Your task to perform on an android device: make emails show in primary in the gmail app Image 0: 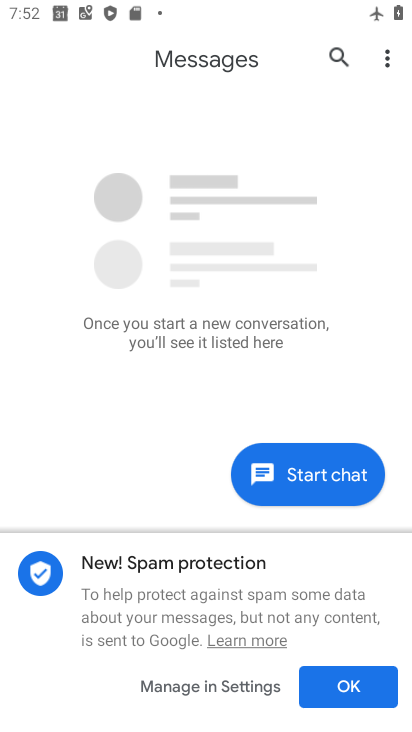
Step 0: press home button
Your task to perform on an android device: make emails show in primary in the gmail app Image 1: 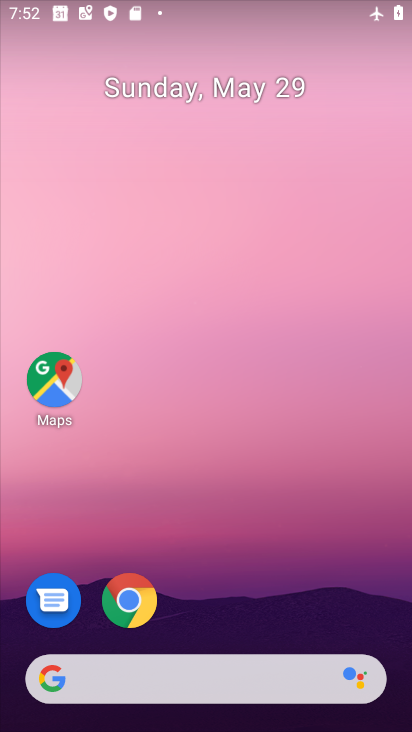
Step 1: drag from (209, 630) to (303, 5)
Your task to perform on an android device: make emails show in primary in the gmail app Image 2: 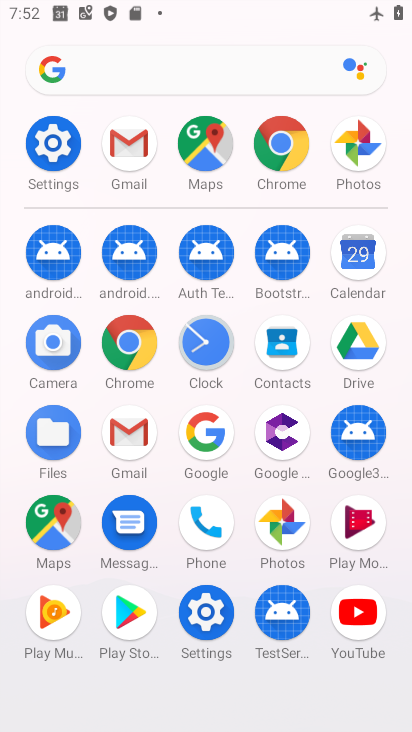
Step 2: click (131, 450)
Your task to perform on an android device: make emails show in primary in the gmail app Image 3: 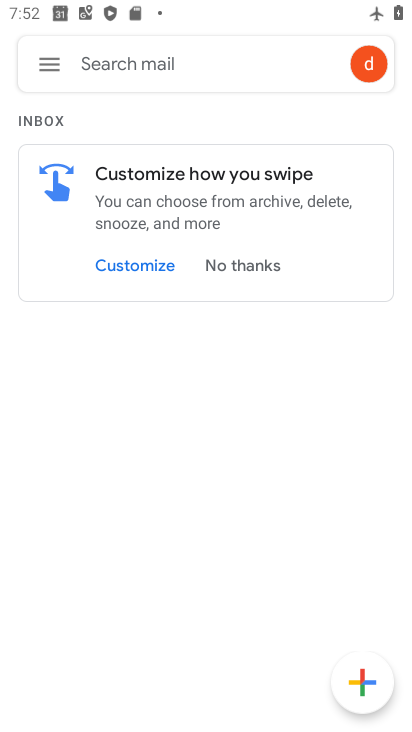
Step 3: click (49, 59)
Your task to perform on an android device: make emails show in primary in the gmail app Image 4: 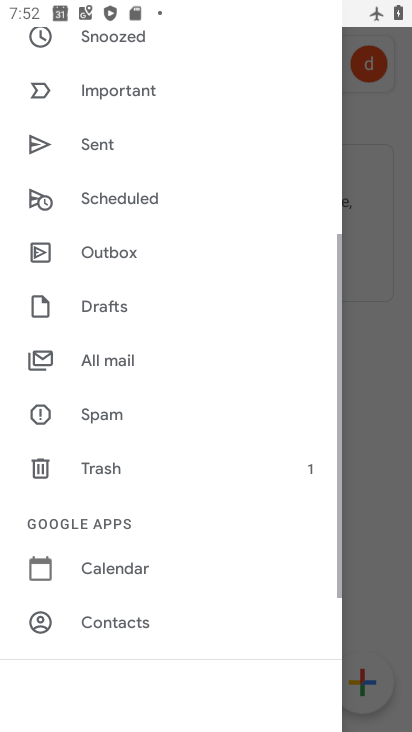
Step 4: drag from (130, 625) to (191, 169)
Your task to perform on an android device: make emails show in primary in the gmail app Image 5: 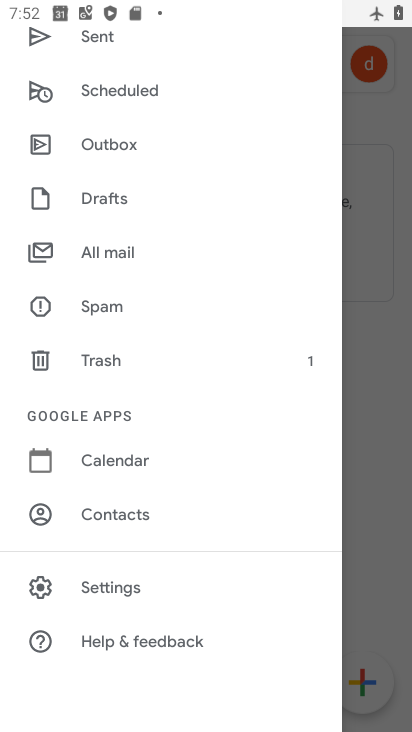
Step 5: click (128, 600)
Your task to perform on an android device: make emails show in primary in the gmail app Image 6: 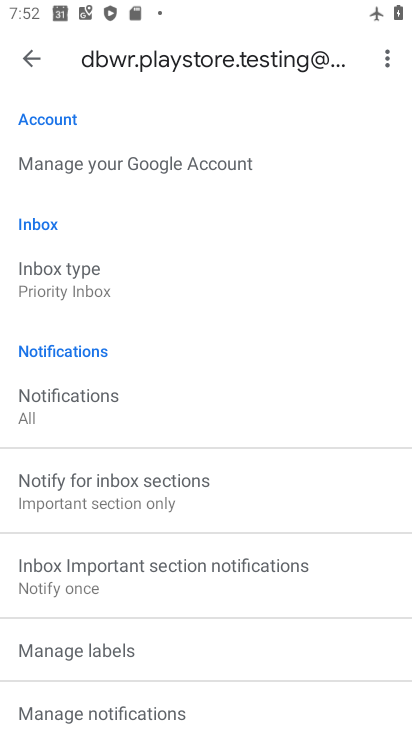
Step 6: click (99, 286)
Your task to perform on an android device: make emails show in primary in the gmail app Image 7: 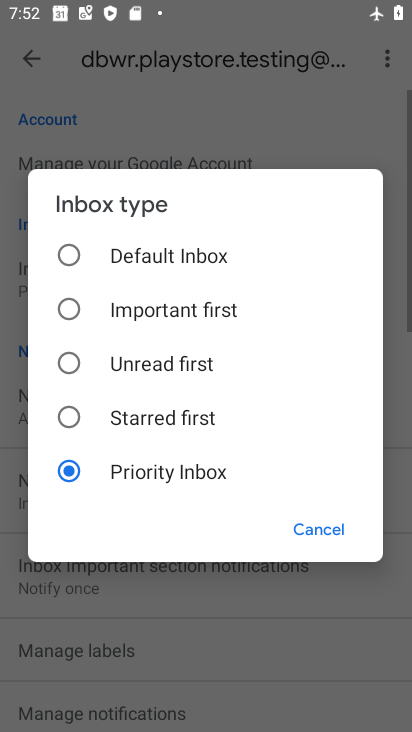
Step 7: click (137, 269)
Your task to perform on an android device: make emails show in primary in the gmail app Image 8: 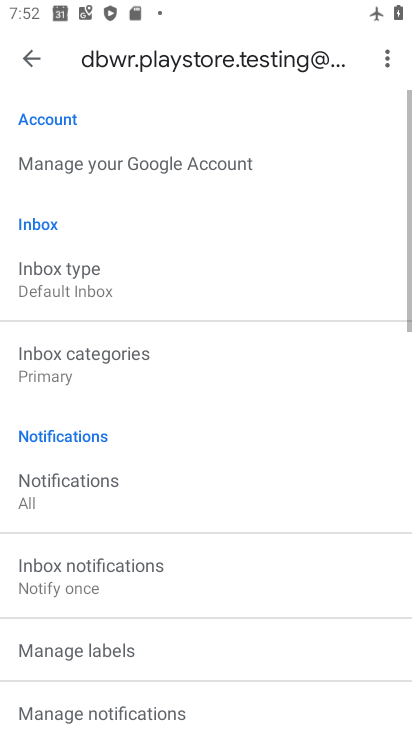
Step 8: click (122, 363)
Your task to perform on an android device: make emails show in primary in the gmail app Image 9: 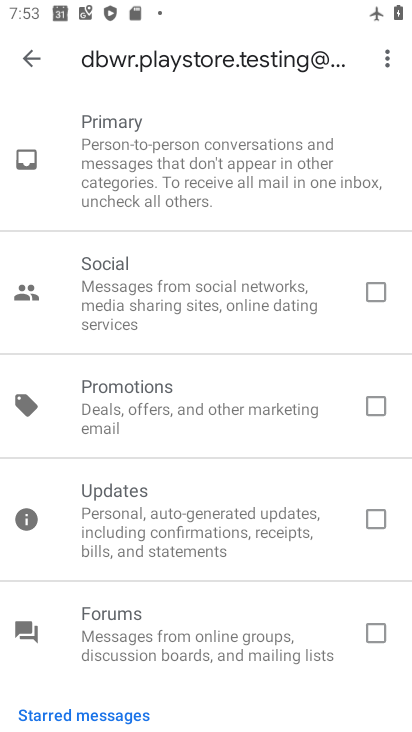
Step 9: task complete